Your task to perform on an android device: change the clock display to digital Image 0: 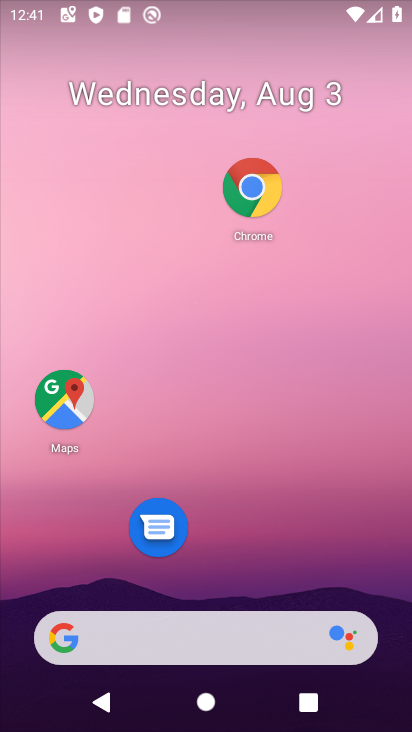
Step 0: drag from (199, 595) to (228, 24)
Your task to perform on an android device: change the clock display to digital Image 1: 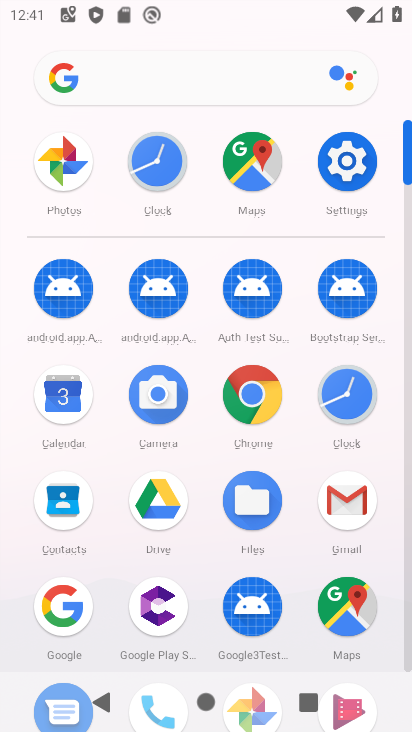
Step 1: click (344, 404)
Your task to perform on an android device: change the clock display to digital Image 2: 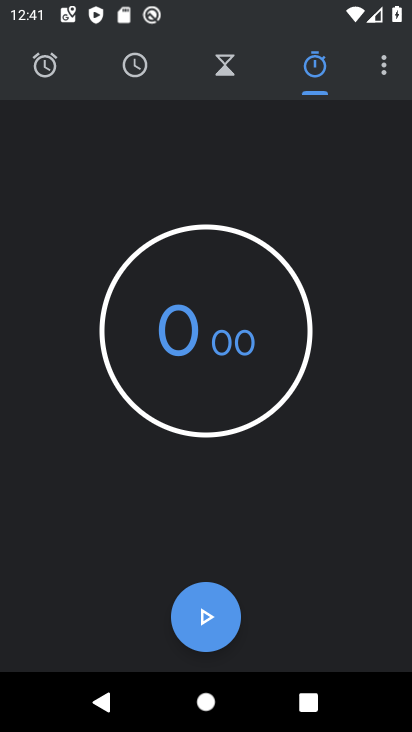
Step 2: click (383, 68)
Your task to perform on an android device: change the clock display to digital Image 3: 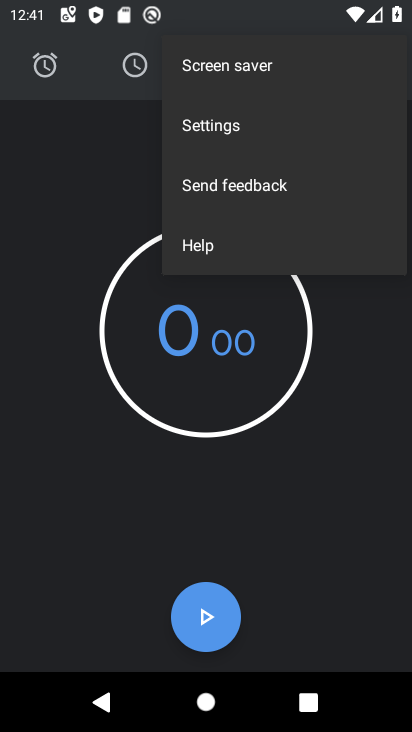
Step 3: click (218, 133)
Your task to perform on an android device: change the clock display to digital Image 4: 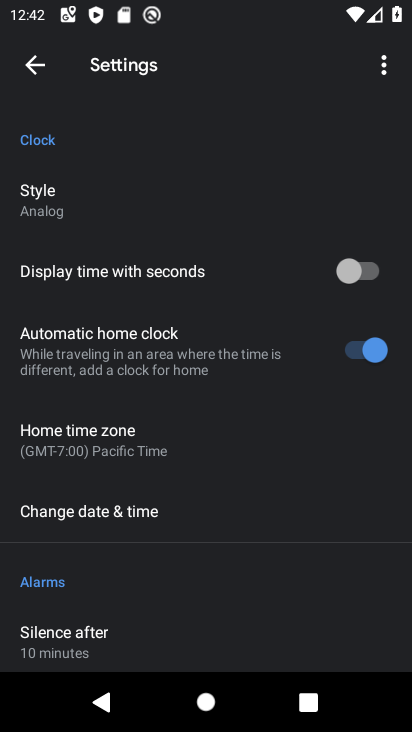
Step 4: click (38, 218)
Your task to perform on an android device: change the clock display to digital Image 5: 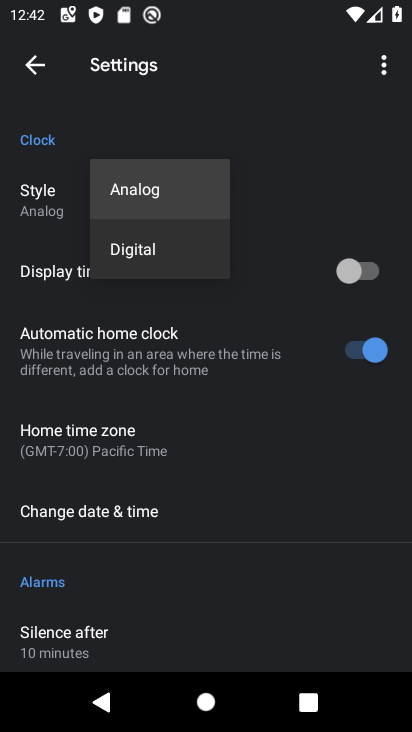
Step 5: click (137, 254)
Your task to perform on an android device: change the clock display to digital Image 6: 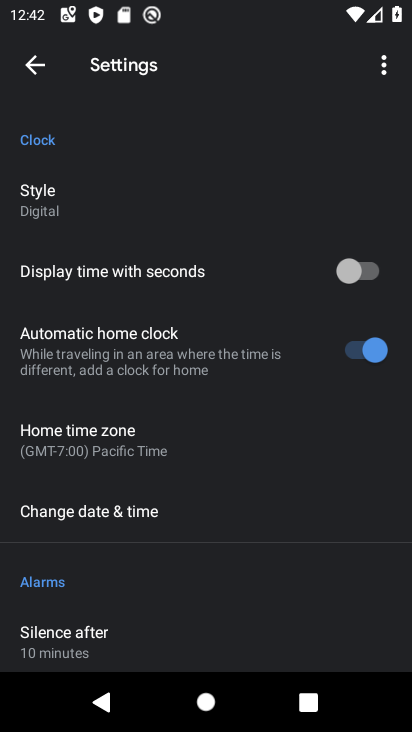
Step 6: task complete